Your task to perform on an android device: clear all cookies in the chrome app Image 0: 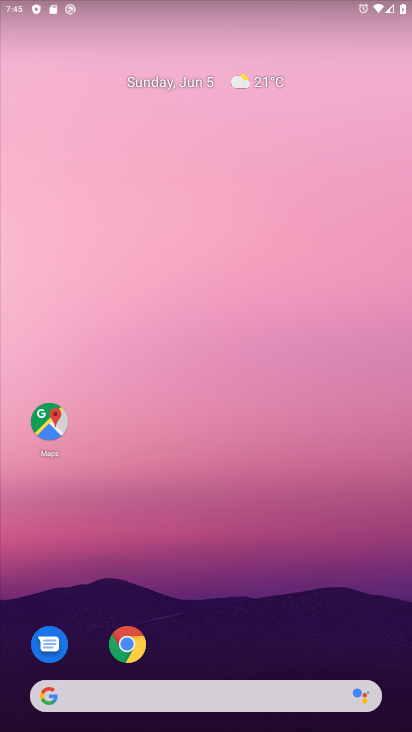
Step 0: press home button
Your task to perform on an android device: clear all cookies in the chrome app Image 1: 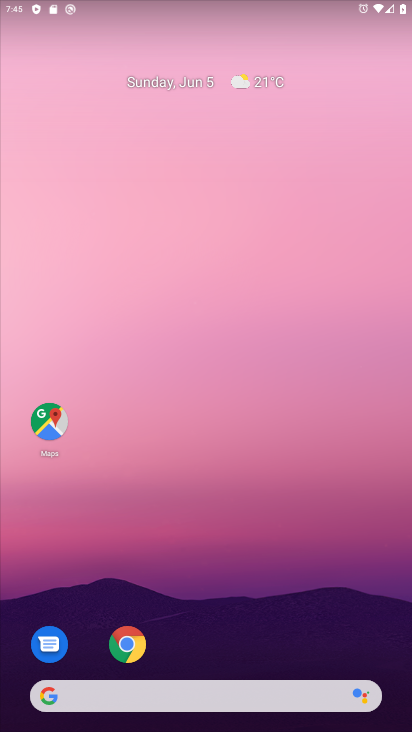
Step 1: click (124, 647)
Your task to perform on an android device: clear all cookies in the chrome app Image 2: 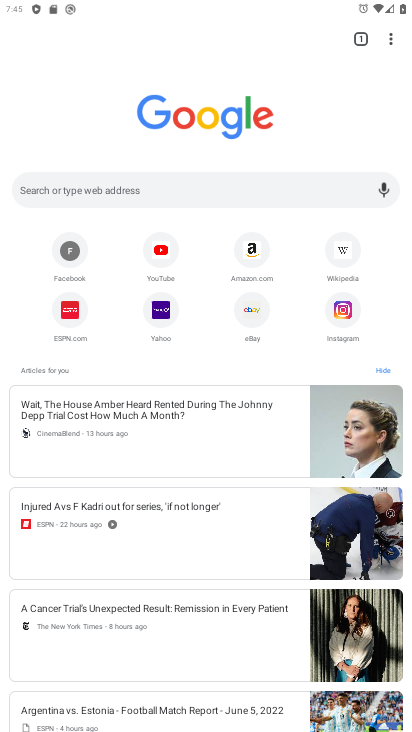
Step 2: click (395, 38)
Your task to perform on an android device: clear all cookies in the chrome app Image 3: 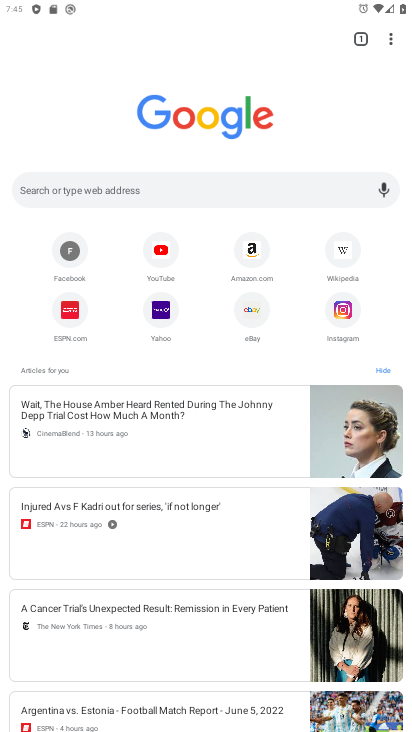
Step 3: click (387, 39)
Your task to perform on an android device: clear all cookies in the chrome app Image 4: 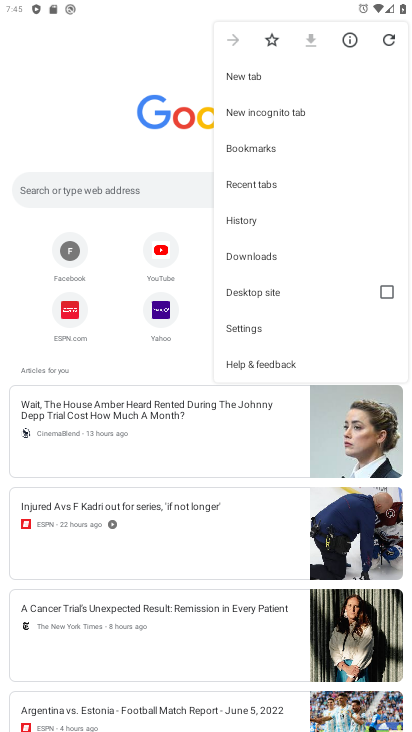
Step 4: click (261, 217)
Your task to perform on an android device: clear all cookies in the chrome app Image 5: 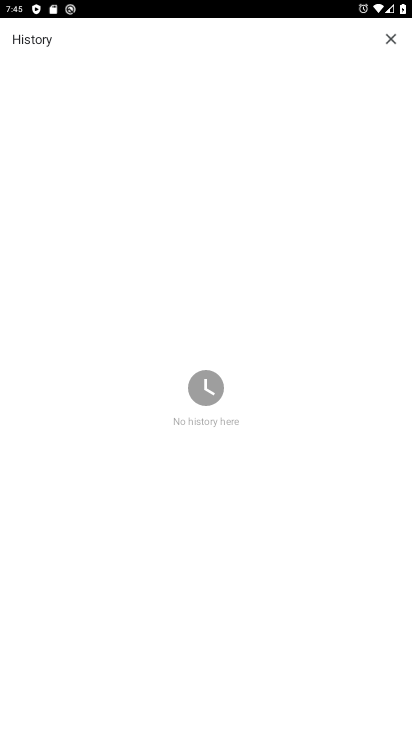
Step 5: task complete